Your task to perform on an android device: Go to privacy settings Image 0: 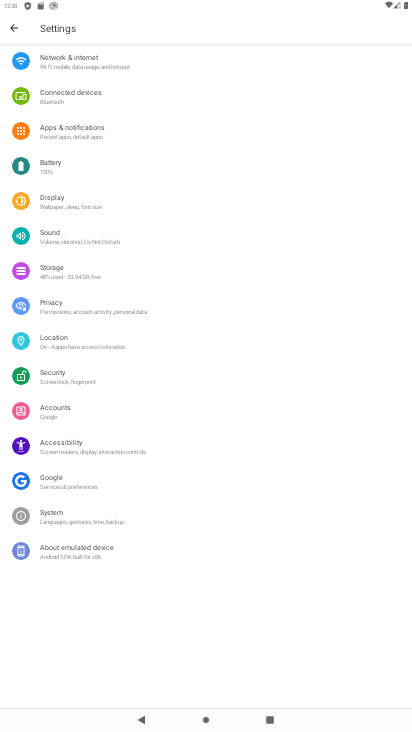
Step 0: click (52, 313)
Your task to perform on an android device: Go to privacy settings Image 1: 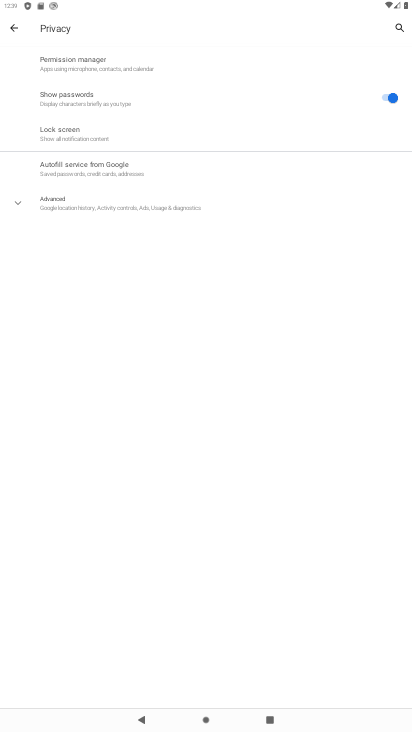
Step 1: click (164, 195)
Your task to perform on an android device: Go to privacy settings Image 2: 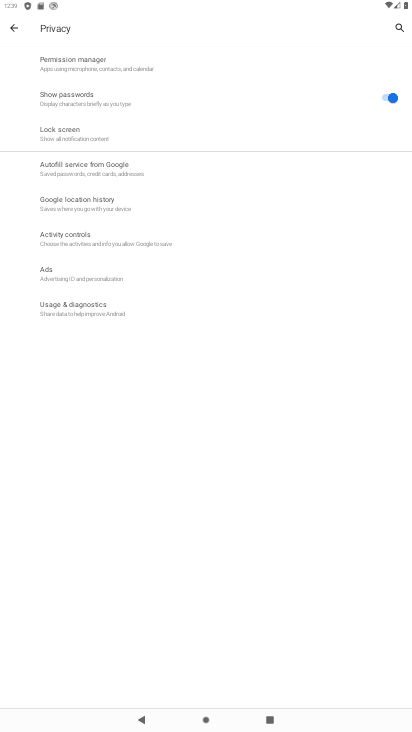
Step 2: task complete